Your task to perform on an android device: Show me recent news Image 0: 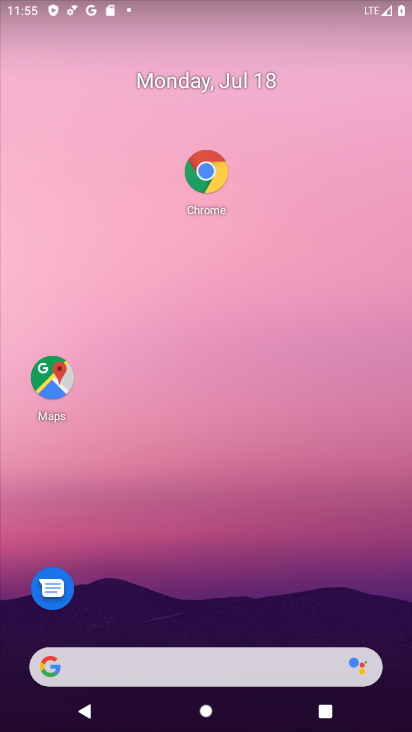
Step 0: click (168, 655)
Your task to perform on an android device: Show me recent news Image 1: 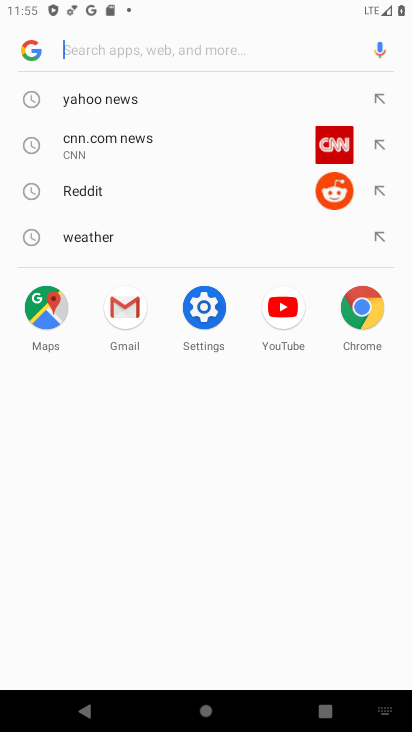
Step 1: click (26, 33)
Your task to perform on an android device: Show me recent news Image 2: 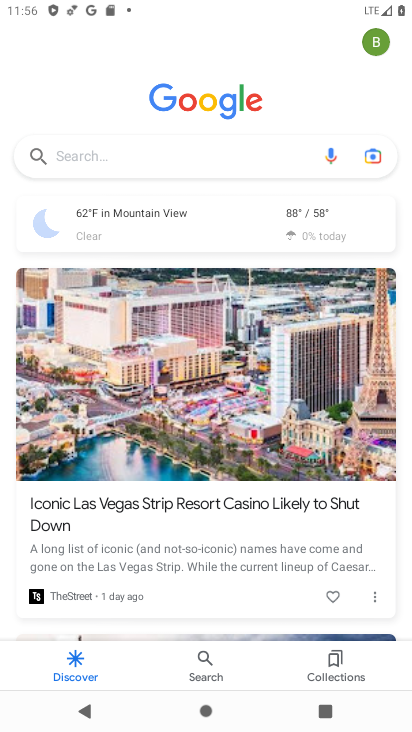
Step 2: task complete